Your task to perform on an android device: Go to privacy settings Image 0: 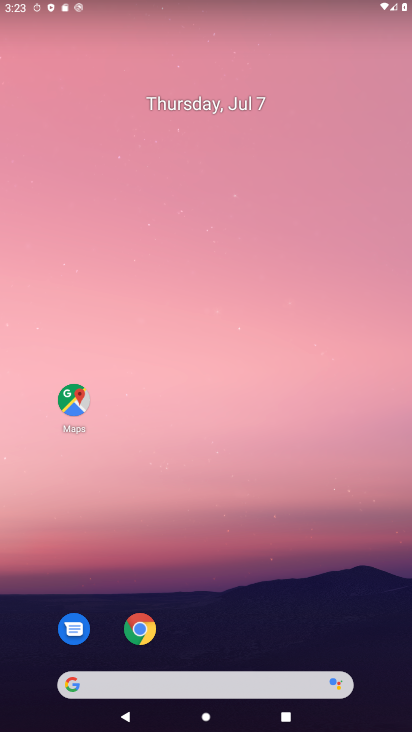
Step 0: drag from (191, 338) to (191, 136)
Your task to perform on an android device: Go to privacy settings Image 1: 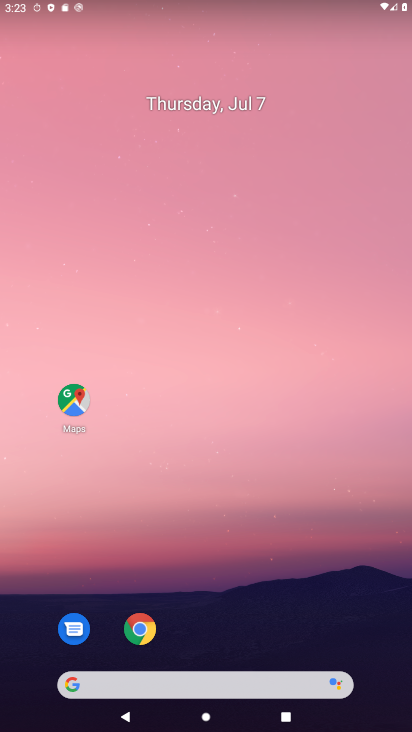
Step 1: drag from (195, 590) to (205, 40)
Your task to perform on an android device: Go to privacy settings Image 2: 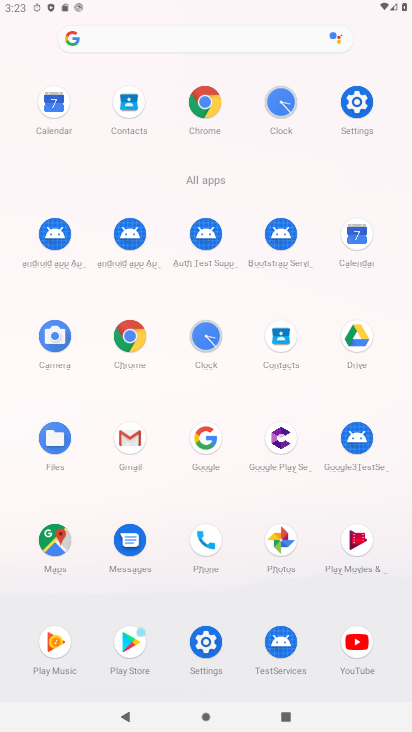
Step 2: click (357, 104)
Your task to perform on an android device: Go to privacy settings Image 3: 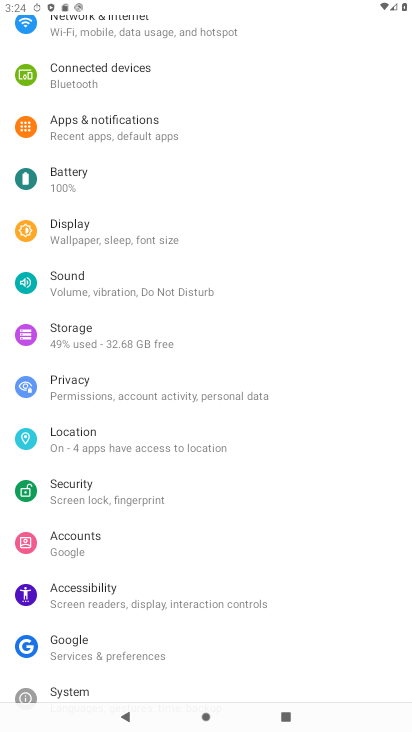
Step 3: click (76, 391)
Your task to perform on an android device: Go to privacy settings Image 4: 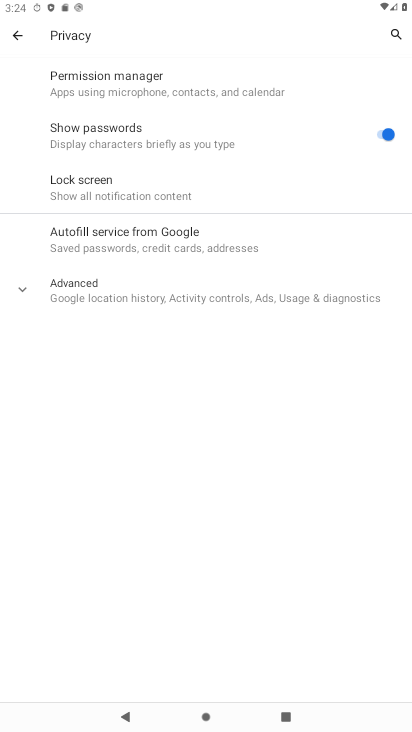
Step 4: task complete